Your task to perform on an android device: Show me the alarms in the clock app Image 0: 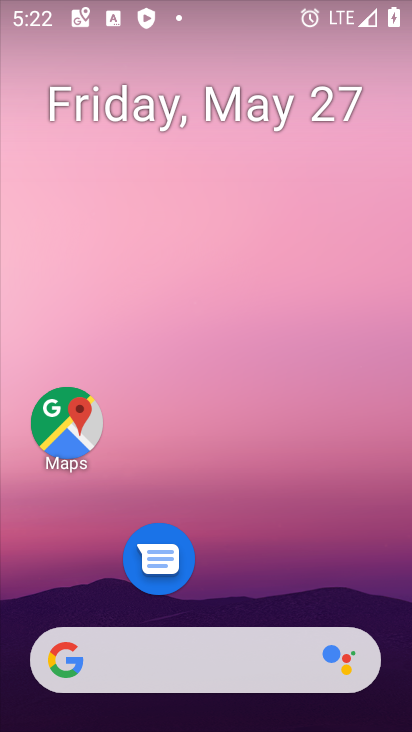
Step 0: drag from (304, 678) to (388, 20)
Your task to perform on an android device: Show me the alarms in the clock app Image 1: 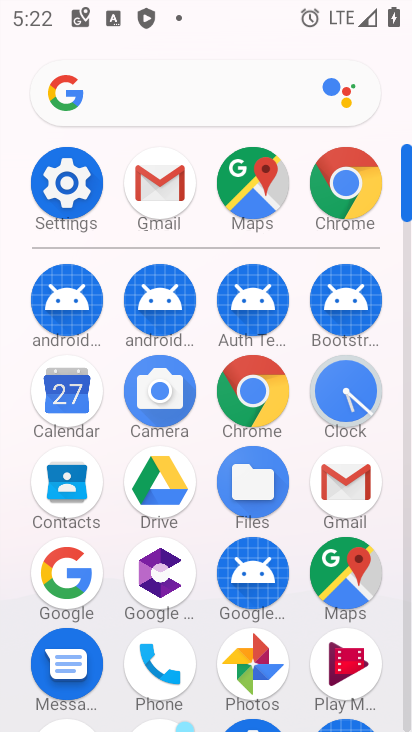
Step 1: click (342, 404)
Your task to perform on an android device: Show me the alarms in the clock app Image 2: 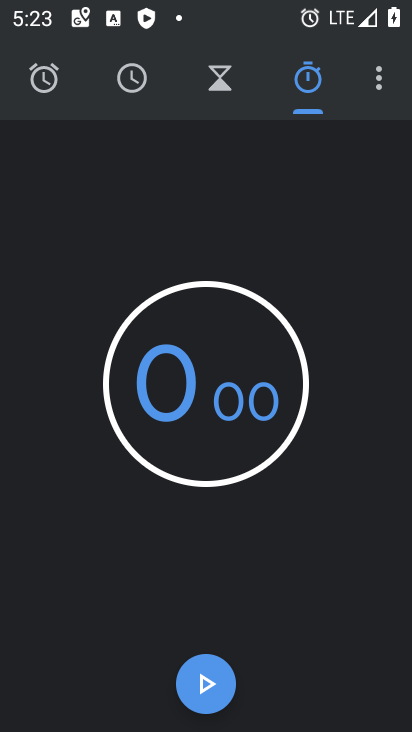
Step 2: click (384, 81)
Your task to perform on an android device: Show me the alarms in the clock app Image 3: 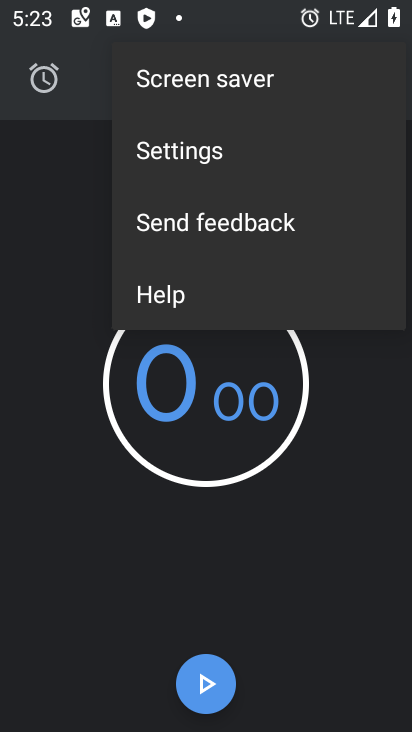
Step 3: click (56, 157)
Your task to perform on an android device: Show me the alarms in the clock app Image 4: 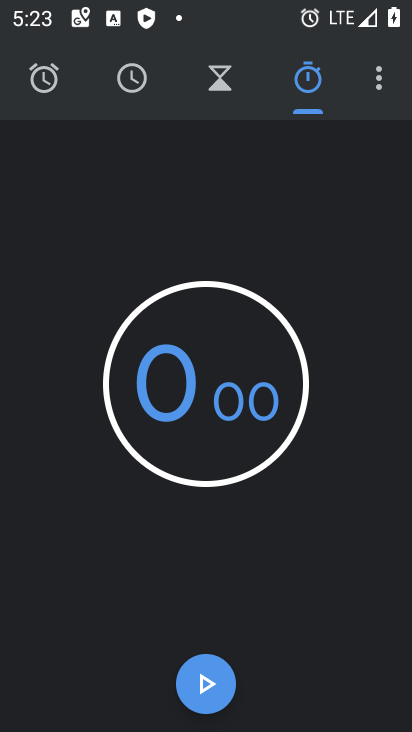
Step 4: click (45, 62)
Your task to perform on an android device: Show me the alarms in the clock app Image 5: 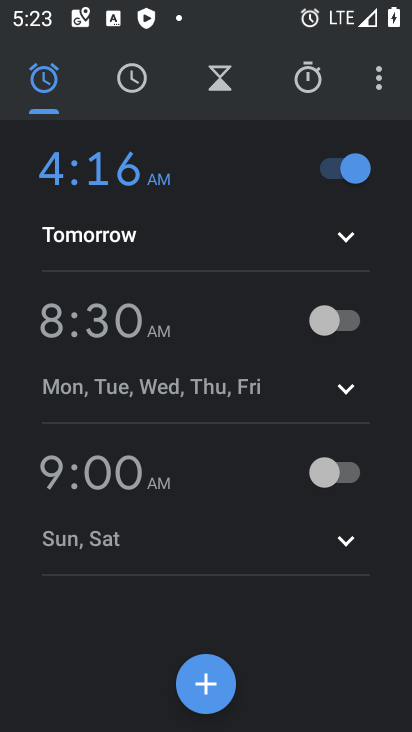
Step 5: task complete